Your task to perform on an android device: Go to ESPN.com Image 0: 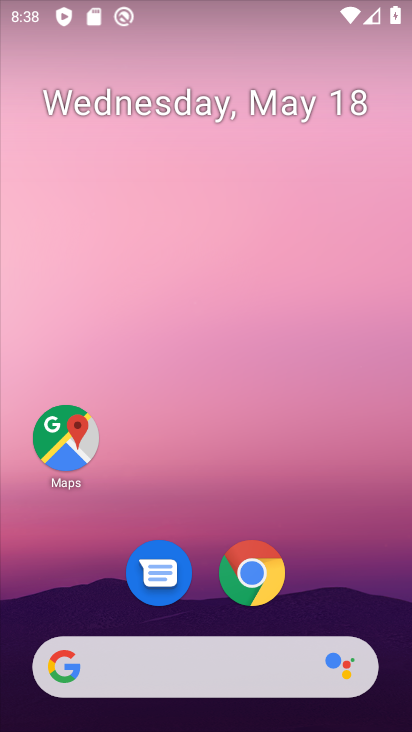
Step 0: click (167, 677)
Your task to perform on an android device: Go to ESPN.com Image 1: 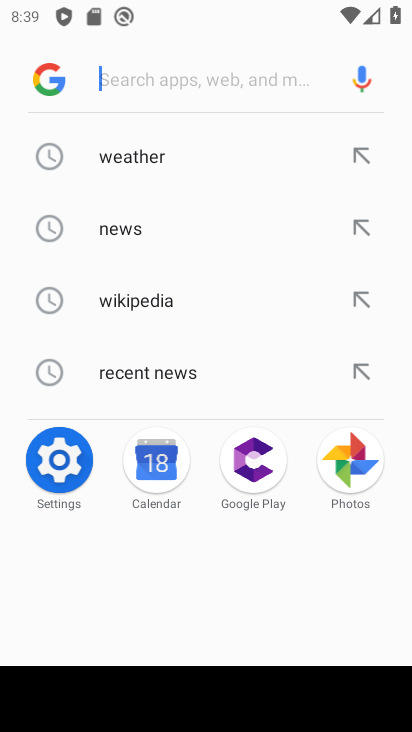
Step 1: type "espn.com"
Your task to perform on an android device: Go to ESPN.com Image 2: 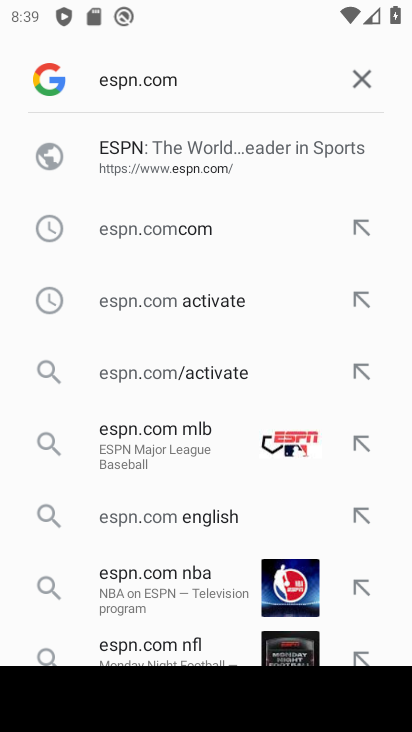
Step 2: click (180, 147)
Your task to perform on an android device: Go to ESPN.com Image 3: 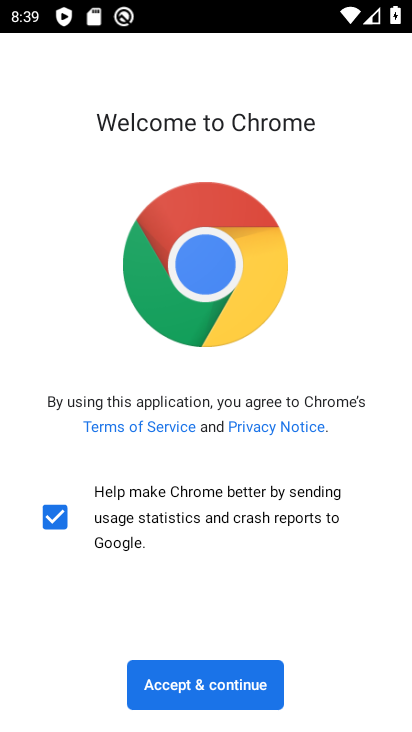
Step 3: click (161, 685)
Your task to perform on an android device: Go to ESPN.com Image 4: 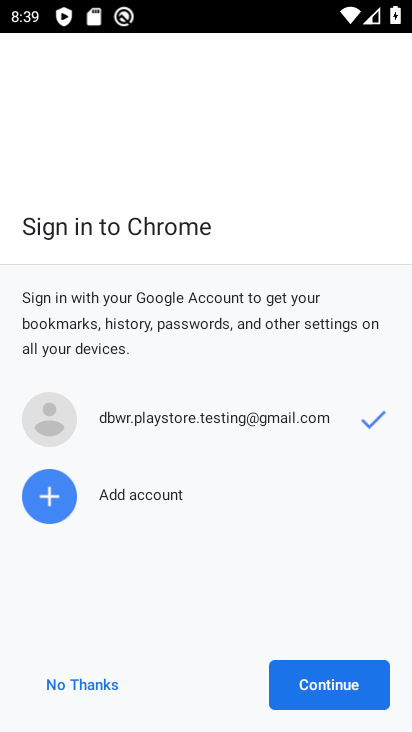
Step 4: click (359, 700)
Your task to perform on an android device: Go to ESPN.com Image 5: 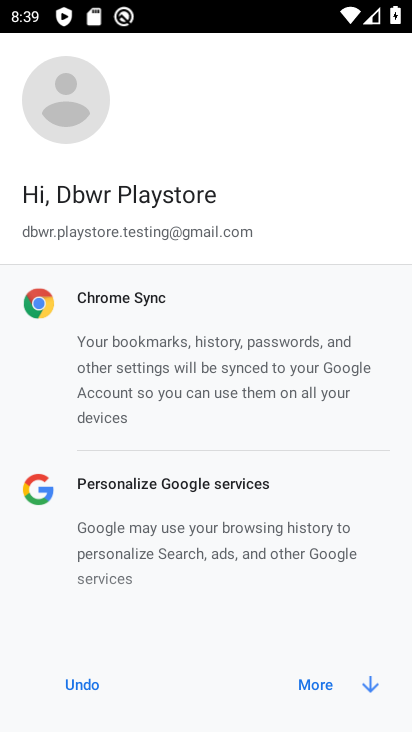
Step 5: click (310, 688)
Your task to perform on an android device: Go to ESPN.com Image 6: 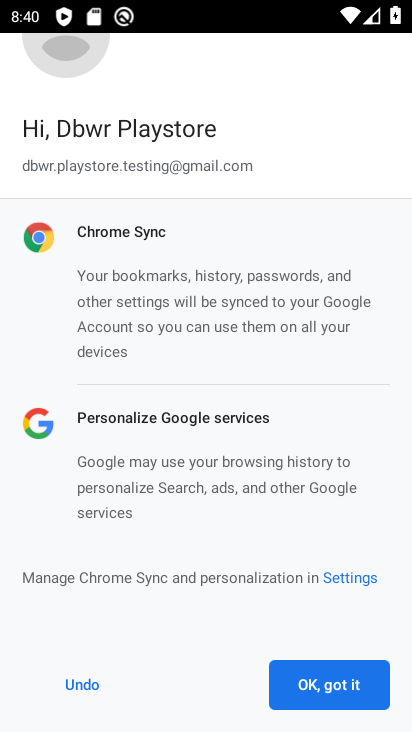
Step 6: click (364, 677)
Your task to perform on an android device: Go to ESPN.com Image 7: 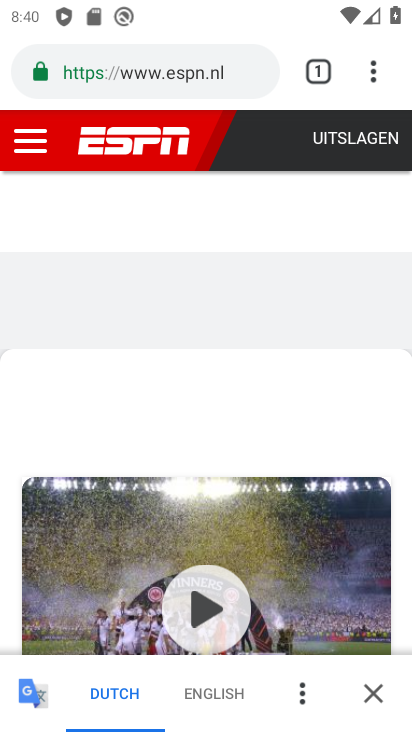
Step 7: task complete